Your task to perform on an android device: Go to network settings Image 0: 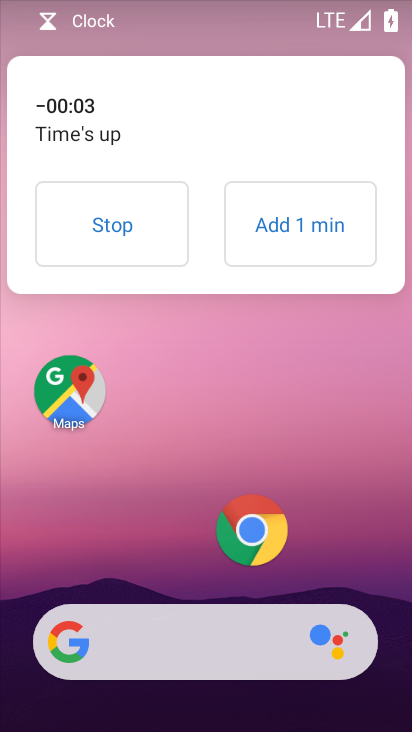
Step 0: click (143, 249)
Your task to perform on an android device: Go to network settings Image 1: 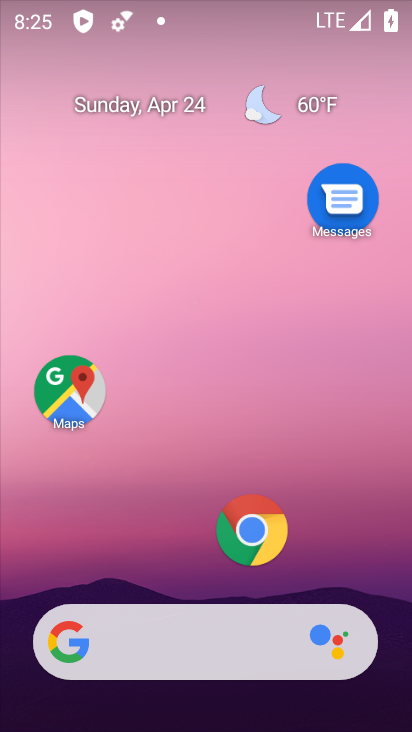
Step 1: drag from (128, 598) to (254, 19)
Your task to perform on an android device: Go to network settings Image 2: 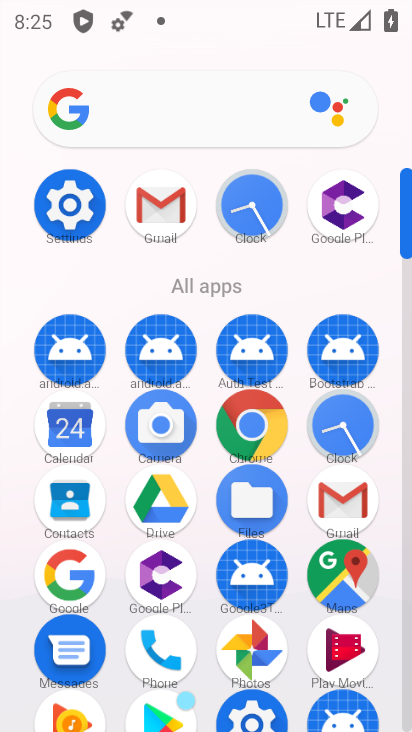
Step 2: drag from (235, 506) to (302, 249)
Your task to perform on an android device: Go to network settings Image 3: 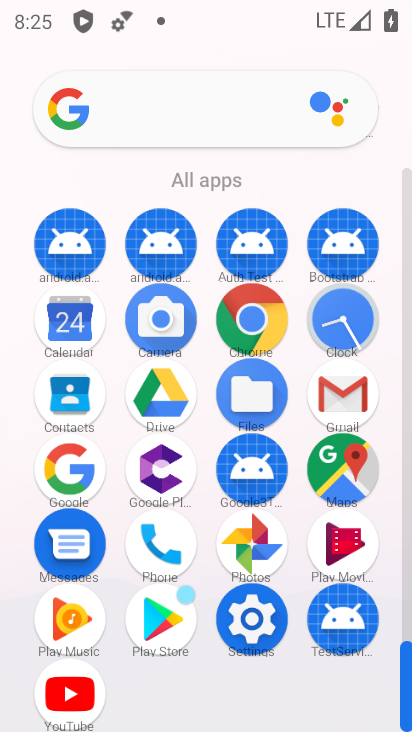
Step 3: click (258, 618)
Your task to perform on an android device: Go to network settings Image 4: 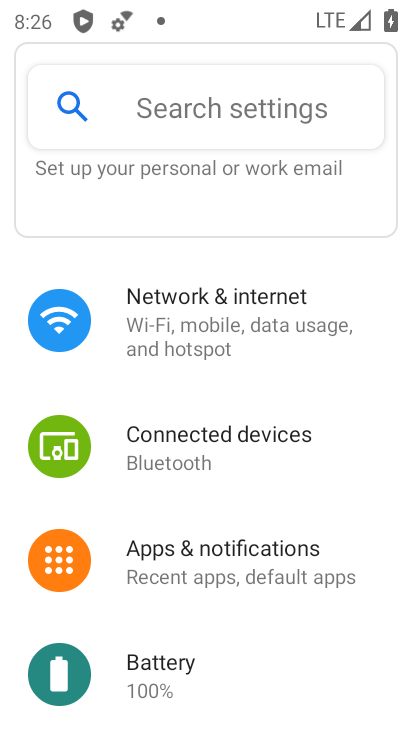
Step 4: click (247, 341)
Your task to perform on an android device: Go to network settings Image 5: 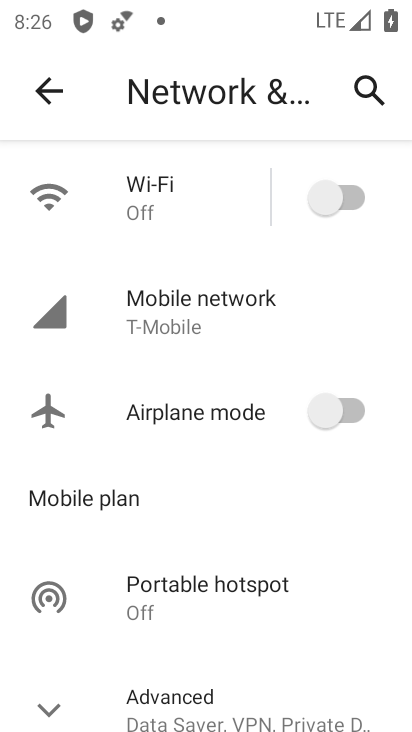
Step 5: click (243, 325)
Your task to perform on an android device: Go to network settings Image 6: 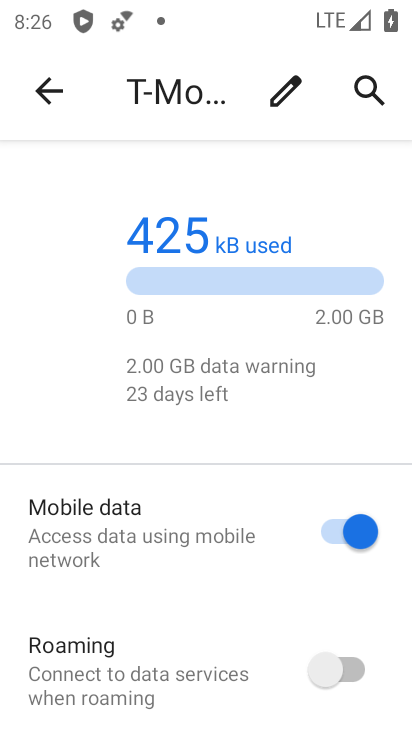
Step 6: task complete